Your task to perform on an android device: Open Youtube and go to the subscriptions tab Image 0: 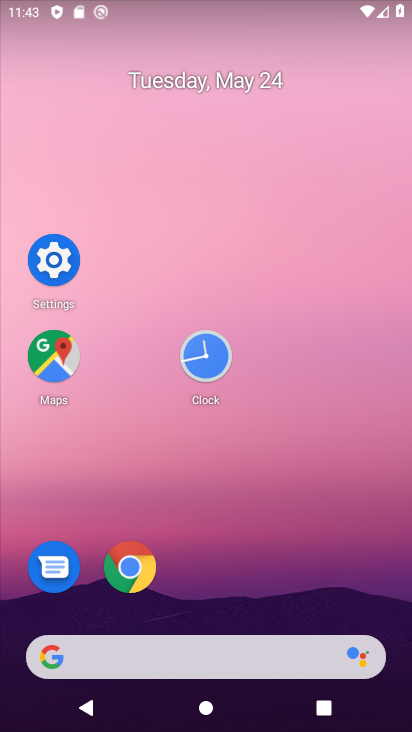
Step 0: drag from (230, 569) to (327, 55)
Your task to perform on an android device: Open Youtube and go to the subscriptions tab Image 1: 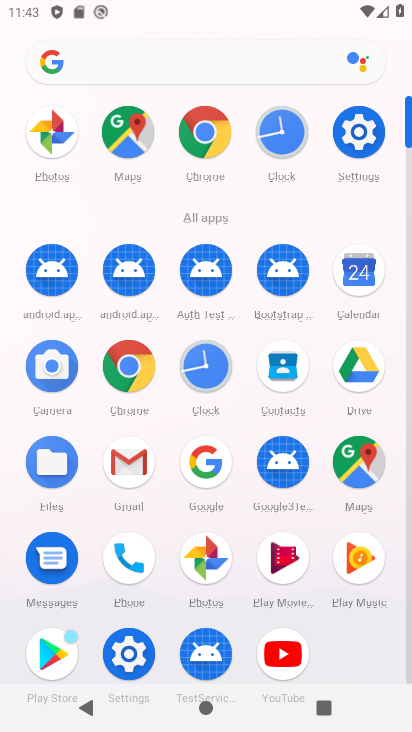
Step 1: drag from (289, 651) to (88, 171)
Your task to perform on an android device: Open Youtube and go to the subscriptions tab Image 2: 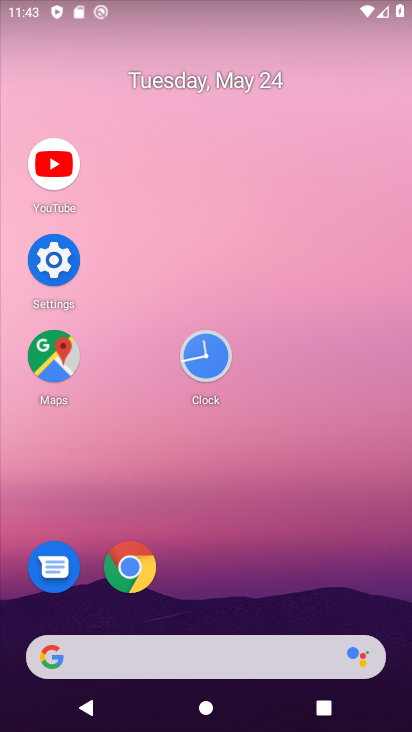
Step 2: click (75, 182)
Your task to perform on an android device: Open Youtube and go to the subscriptions tab Image 3: 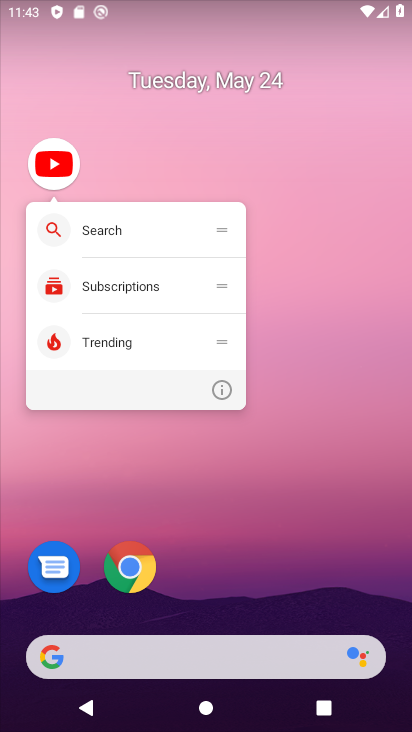
Step 3: click (41, 154)
Your task to perform on an android device: Open Youtube and go to the subscriptions tab Image 4: 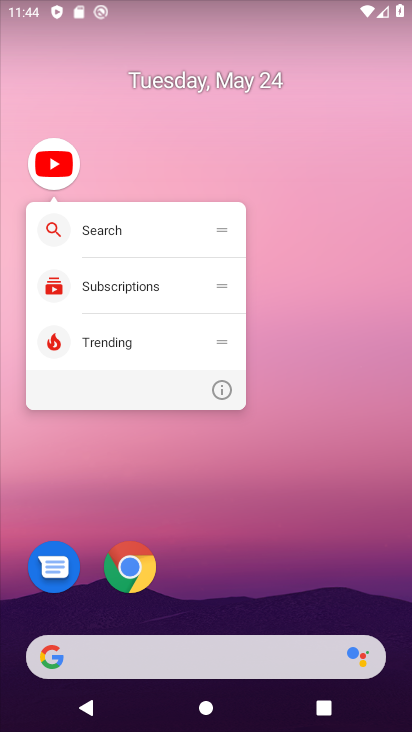
Step 4: click (55, 162)
Your task to perform on an android device: Open Youtube and go to the subscriptions tab Image 5: 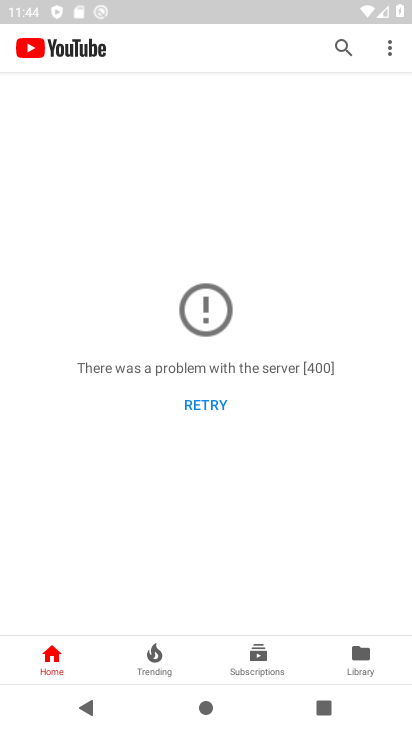
Step 5: click (262, 664)
Your task to perform on an android device: Open Youtube and go to the subscriptions tab Image 6: 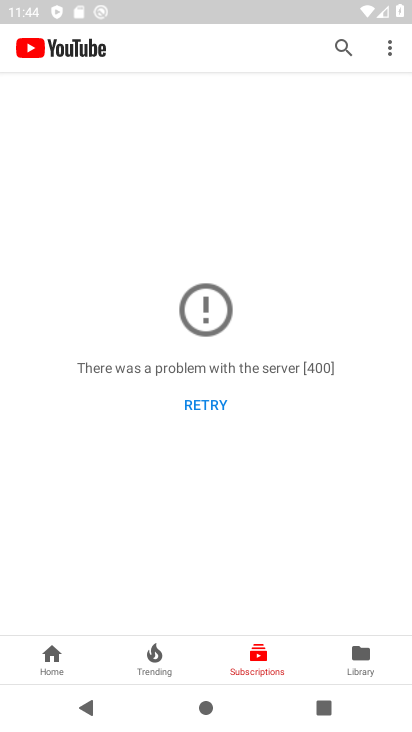
Step 6: task complete